Your task to perform on an android device: Go to notification settings Image 0: 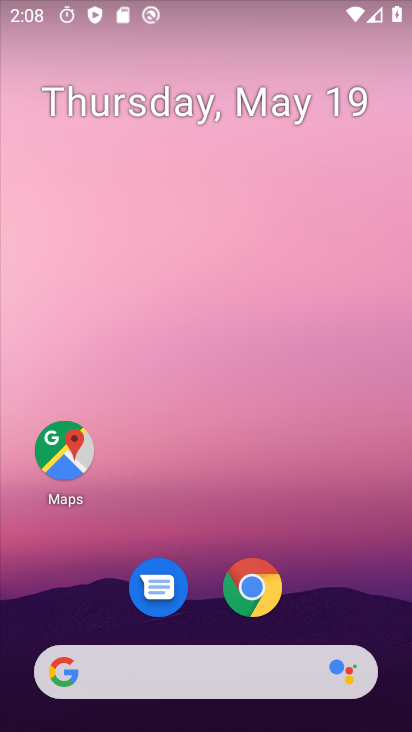
Step 0: drag from (218, 724) to (219, 436)
Your task to perform on an android device: Go to notification settings Image 1: 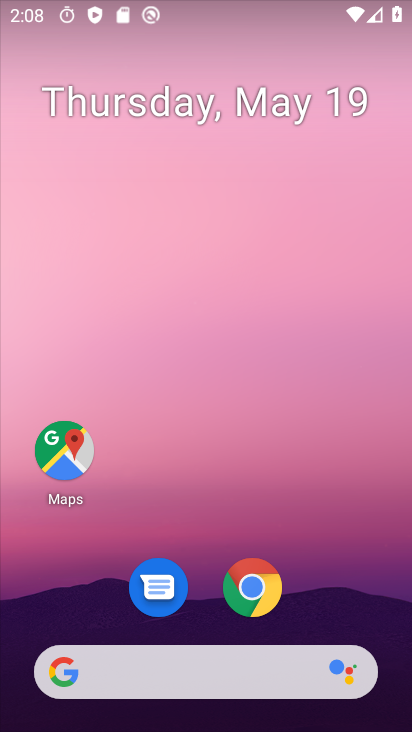
Step 1: drag from (230, 724) to (230, 15)
Your task to perform on an android device: Go to notification settings Image 2: 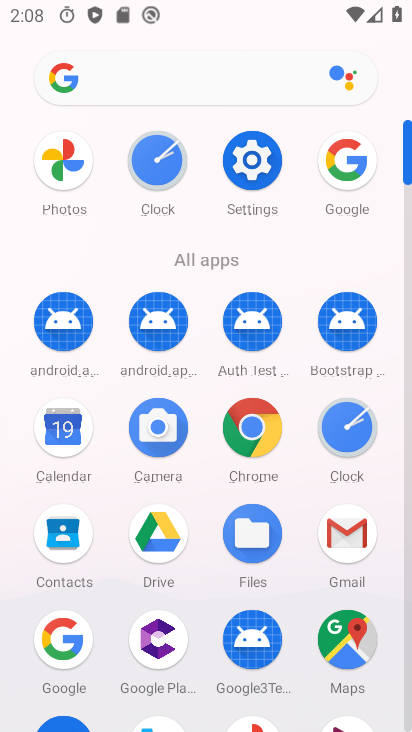
Step 2: click (255, 158)
Your task to perform on an android device: Go to notification settings Image 3: 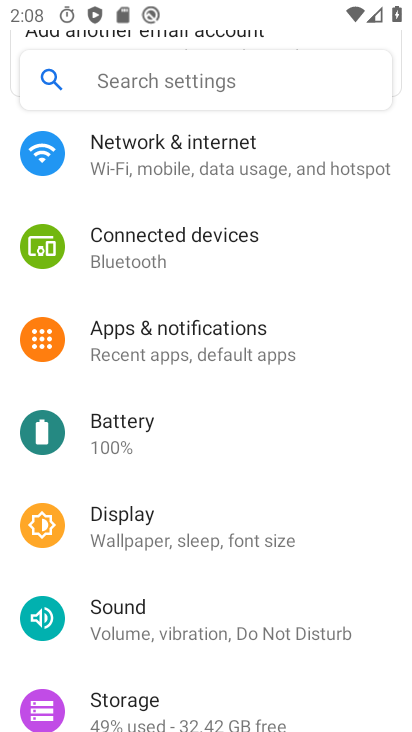
Step 3: click (202, 349)
Your task to perform on an android device: Go to notification settings Image 4: 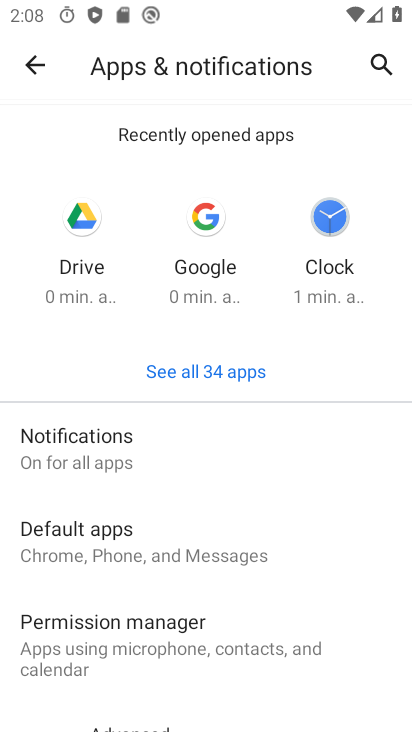
Step 4: click (96, 457)
Your task to perform on an android device: Go to notification settings Image 5: 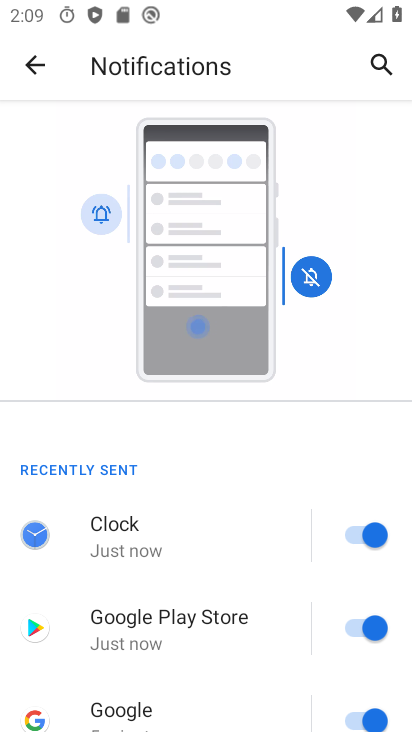
Step 5: task complete